Your task to perform on an android device: Open the files app Image 0: 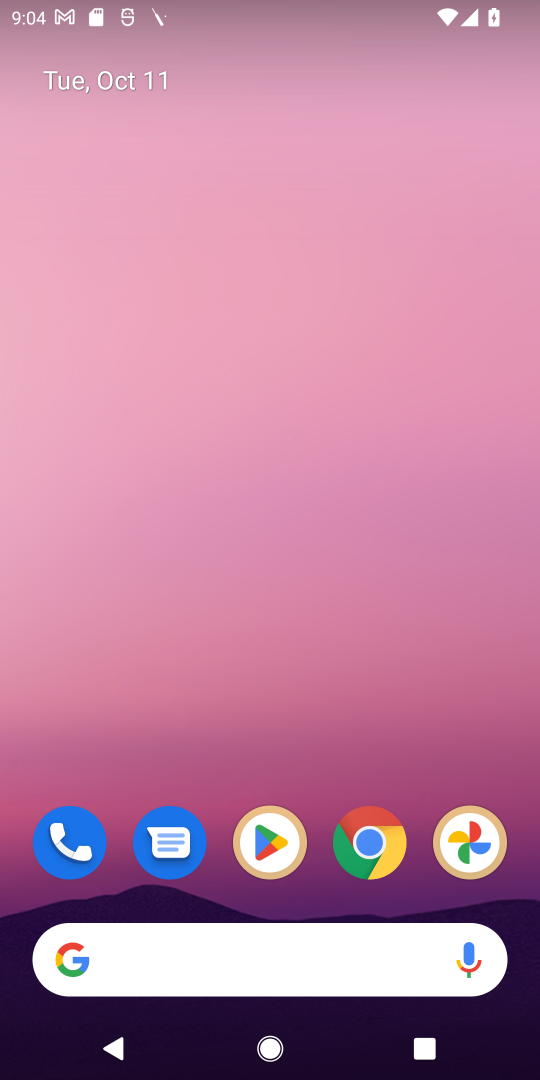
Step 0: click (356, 845)
Your task to perform on an android device: Open the files app Image 1: 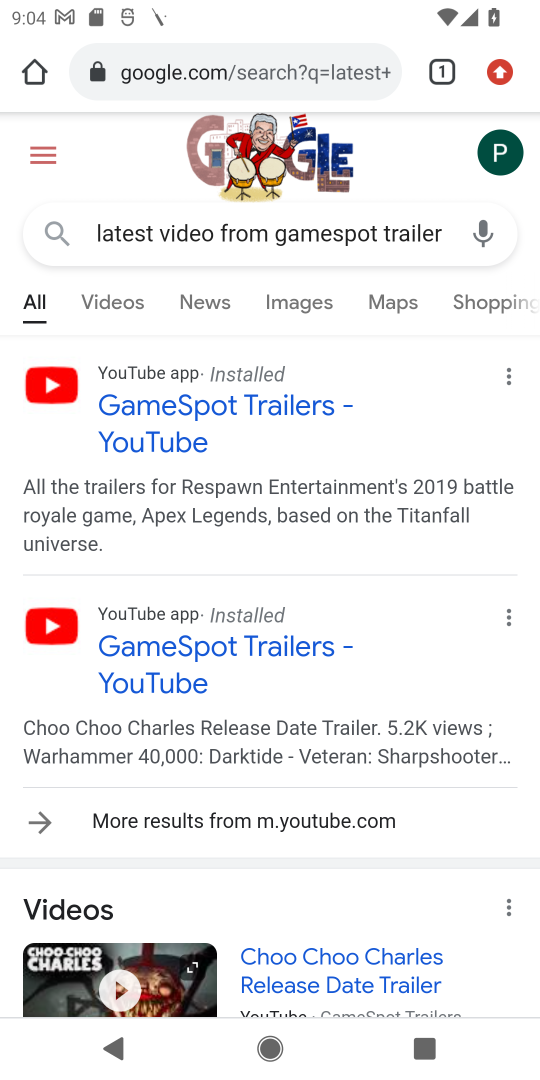
Step 1: click (264, 58)
Your task to perform on an android device: Open the files app Image 2: 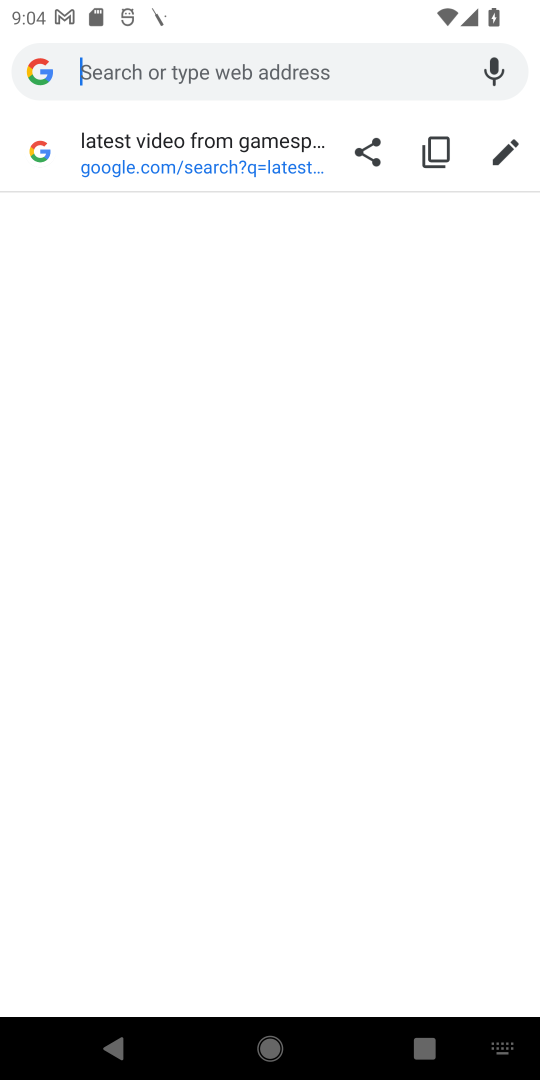
Step 2: type "files app"
Your task to perform on an android device: Open the files app Image 3: 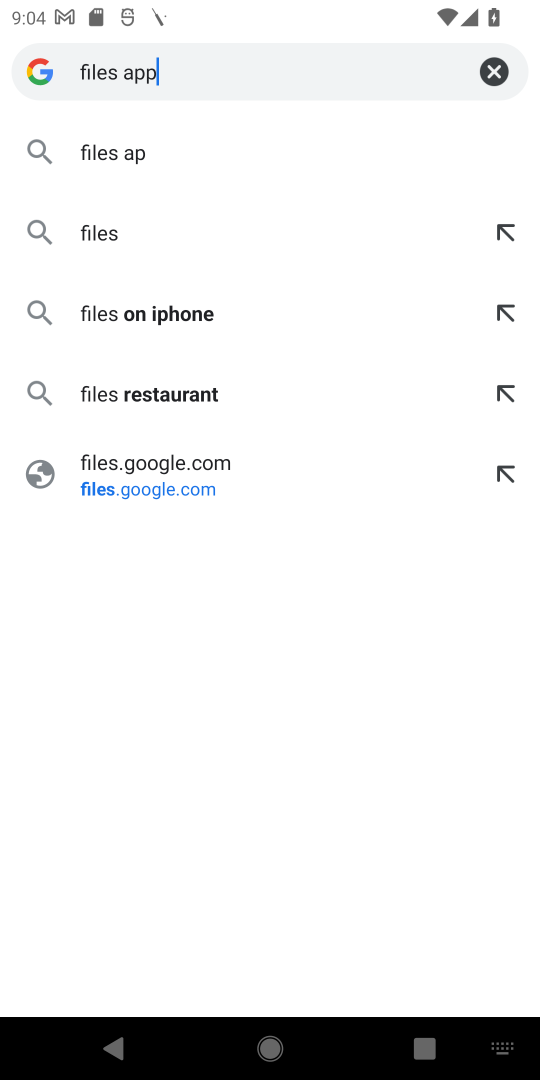
Step 3: type ""
Your task to perform on an android device: Open the files app Image 4: 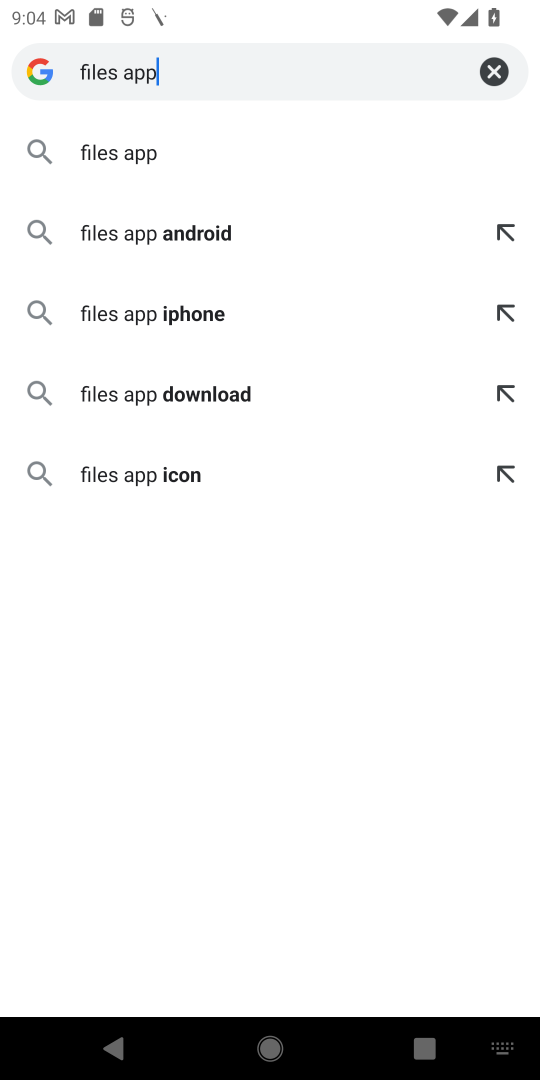
Step 4: click (114, 126)
Your task to perform on an android device: Open the files app Image 5: 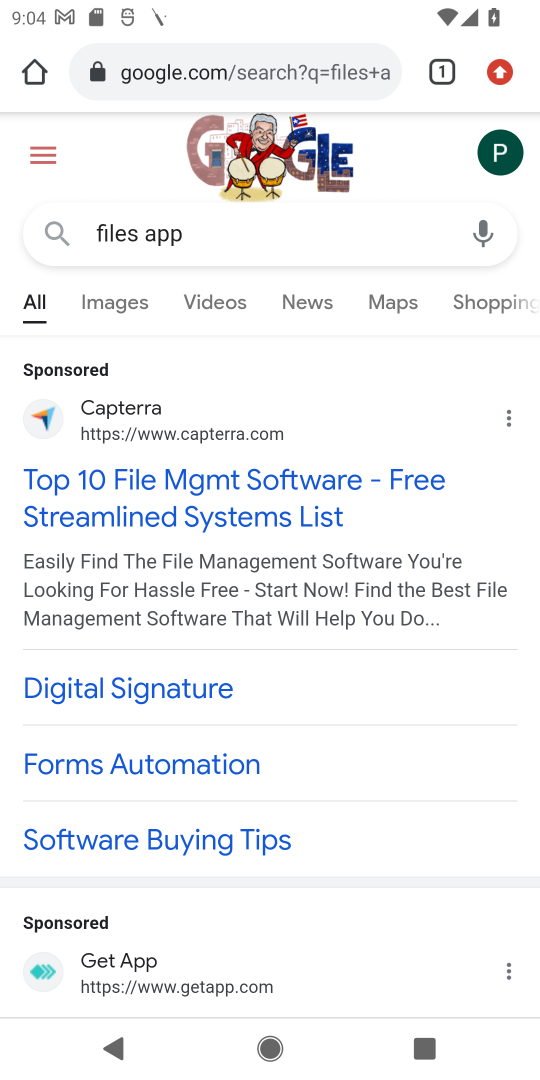
Step 5: drag from (95, 616) to (177, 281)
Your task to perform on an android device: Open the files app Image 6: 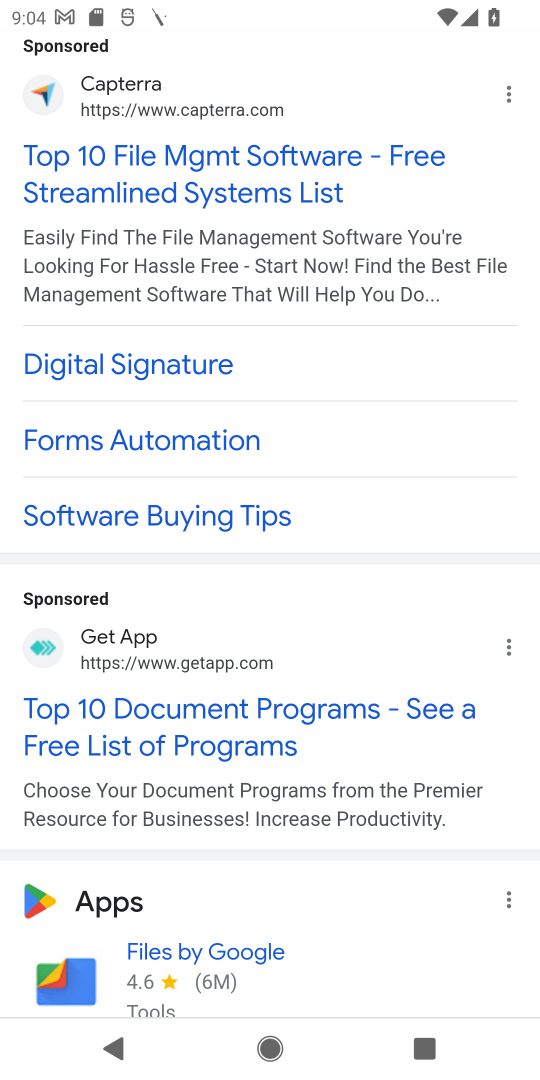
Step 6: drag from (215, 877) to (251, 505)
Your task to perform on an android device: Open the files app Image 7: 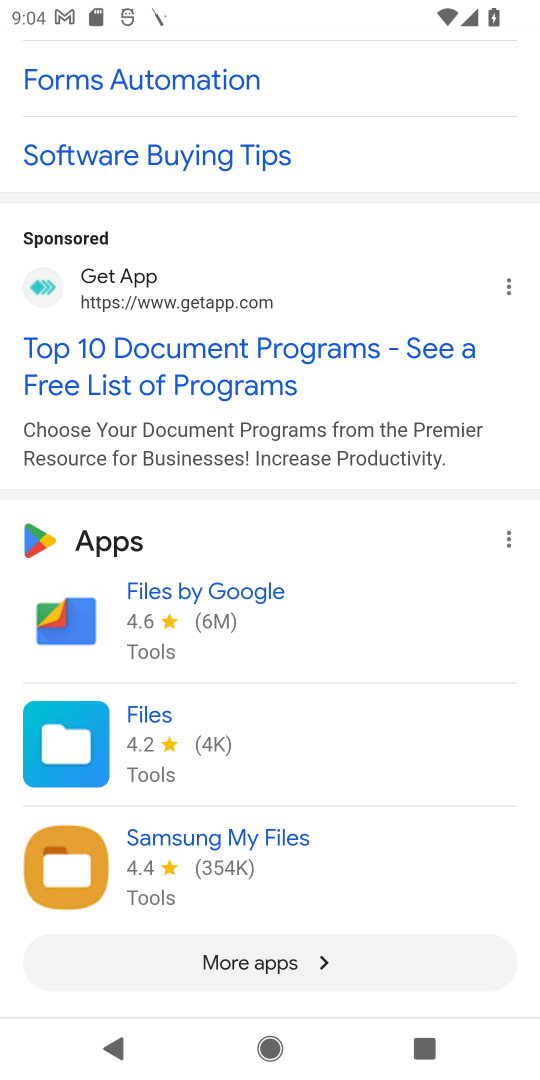
Step 7: drag from (336, 796) to (374, 417)
Your task to perform on an android device: Open the files app Image 8: 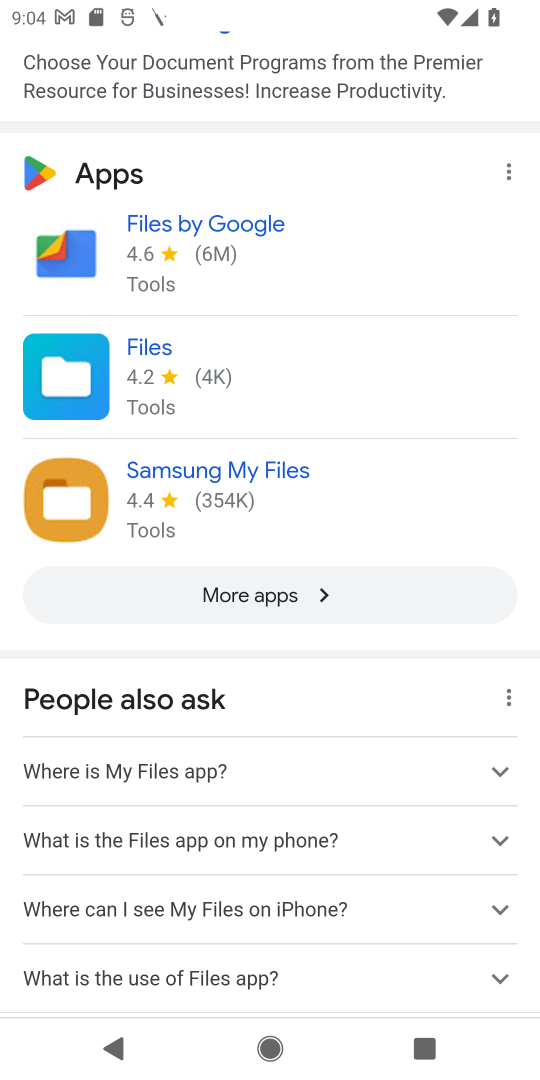
Step 8: click (150, 777)
Your task to perform on an android device: Open the files app Image 9: 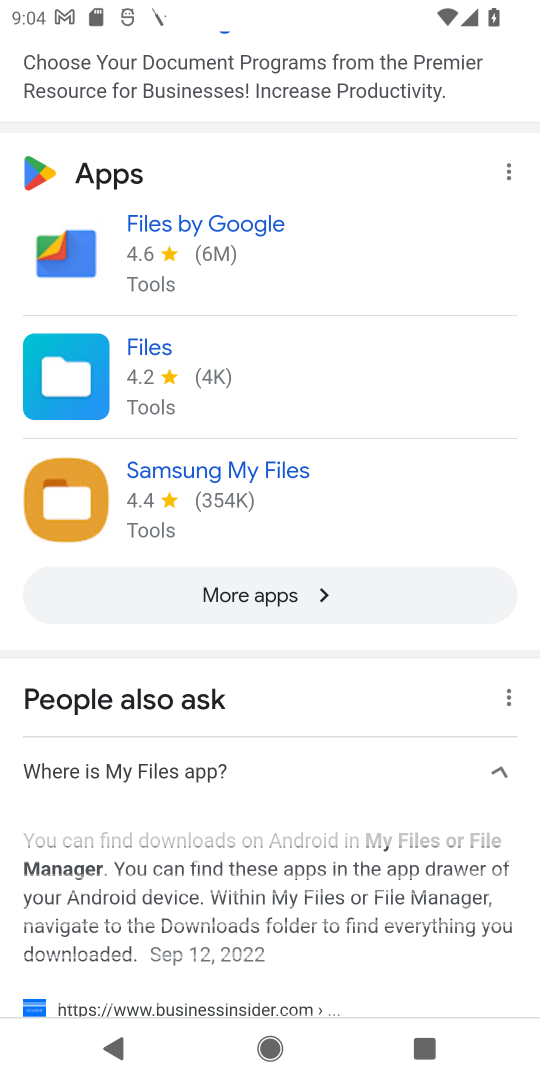
Step 9: task complete